Your task to perform on an android device: turn vacation reply on in the gmail app Image 0: 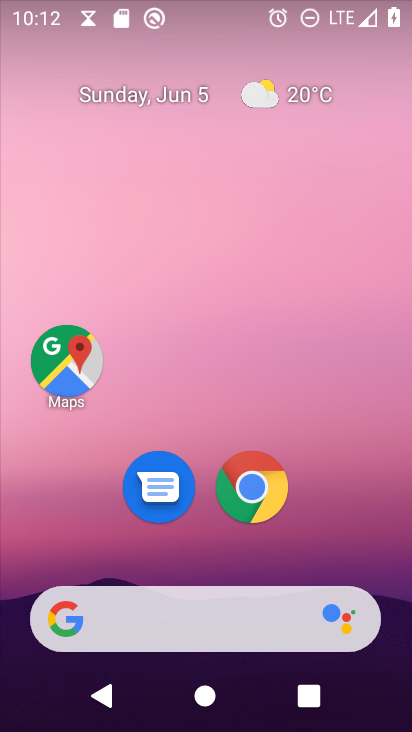
Step 0: drag from (340, 551) to (356, 62)
Your task to perform on an android device: turn vacation reply on in the gmail app Image 1: 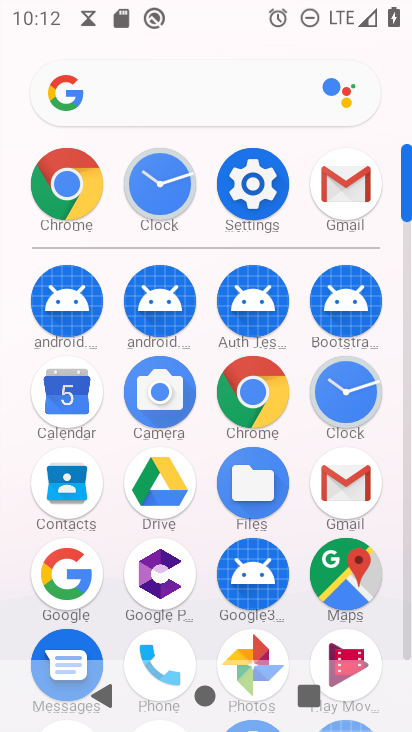
Step 1: click (353, 468)
Your task to perform on an android device: turn vacation reply on in the gmail app Image 2: 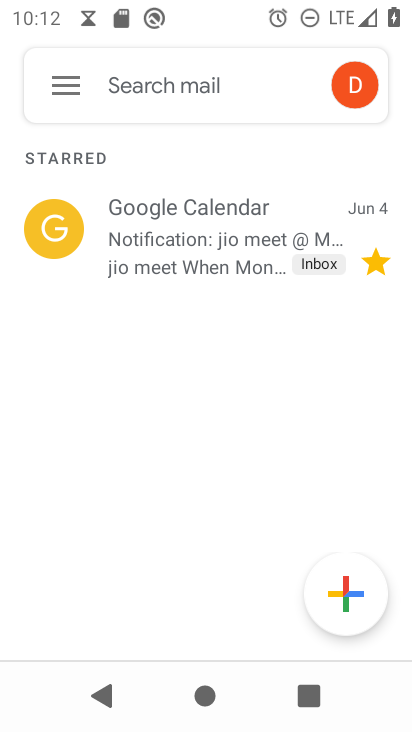
Step 2: click (63, 91)
Your task to perform on an android device: turn vacation reply on in the gmail app Image 3: 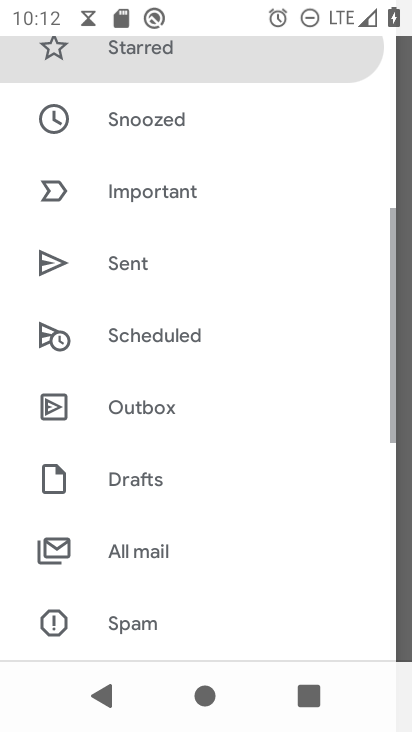
Step 3: drag from (176, 626) to (264, 98)
Your task to perform on an android device: turn vacation reply on in the gmail app Image 4: 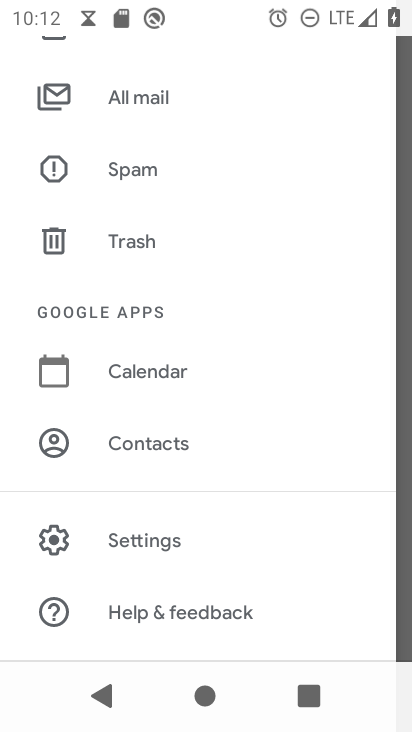
Step 4: click (162, 522)
Your task to perform on an android device: turn vacation reply on in the gmail app Image 5: 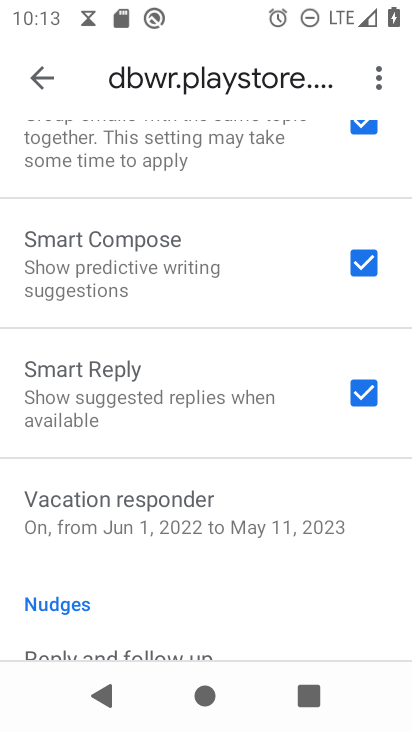
Step 5: click (162, 522)
Your task to perform on an android device: turn vacation reply on in the gmail app Image 6: 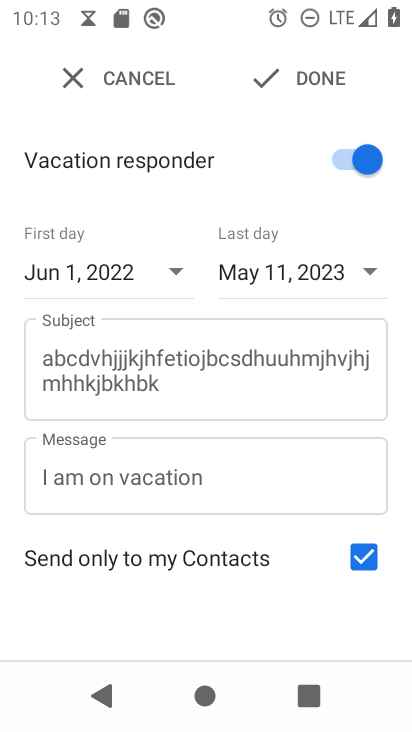
Step 6: task complete